Your task to perform on an android device: Open calendar and show me the third week of next month Image 0: 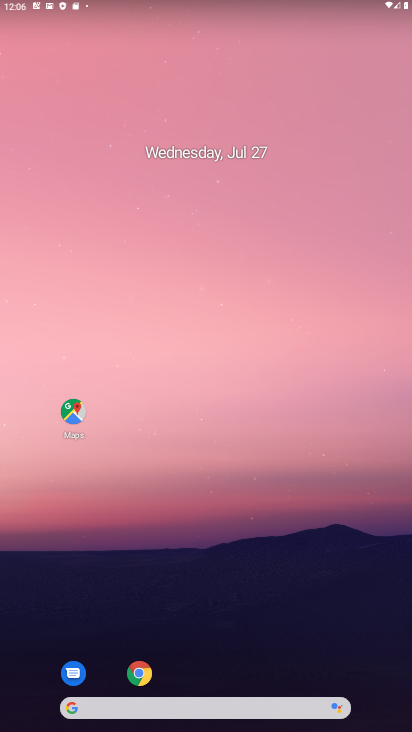
Step 0: drag from (224, 677) to (226, 154)
Your task to perform on an android device: Open calendar and show me the third week of next month Image 1: 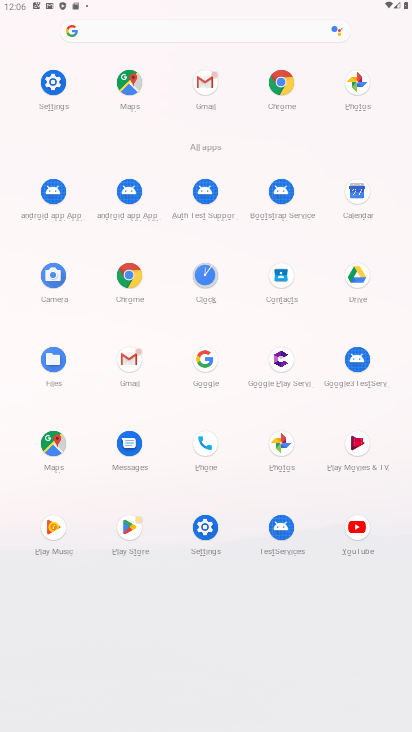
Step 1: click (360, 181)
Your task to perform on an android device: Open calendar and show me the third week of next month Image 2: 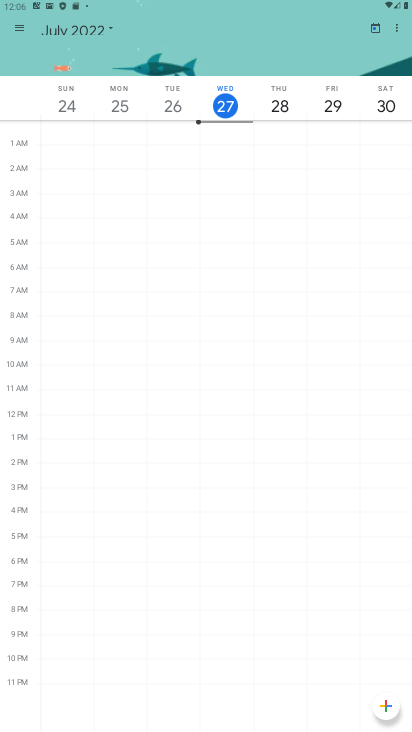
Step 2: task complete